Your task to perform on an android device: turn on sleep mode Image 0: 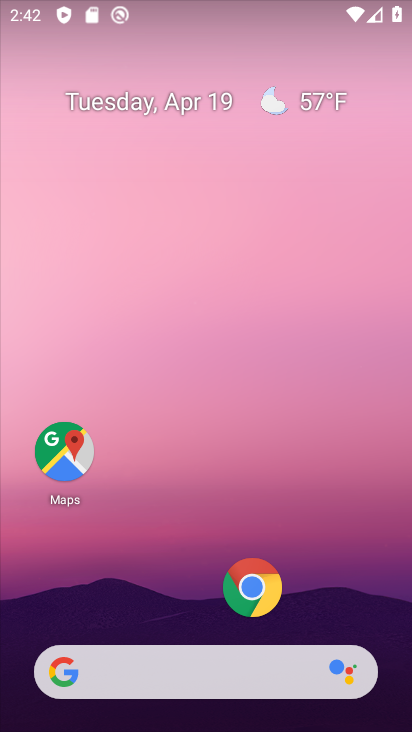
Step 0: drag from (162, 548) to (237, 3)
Your task to perform on an android device: turn on sleep mode Image 1: 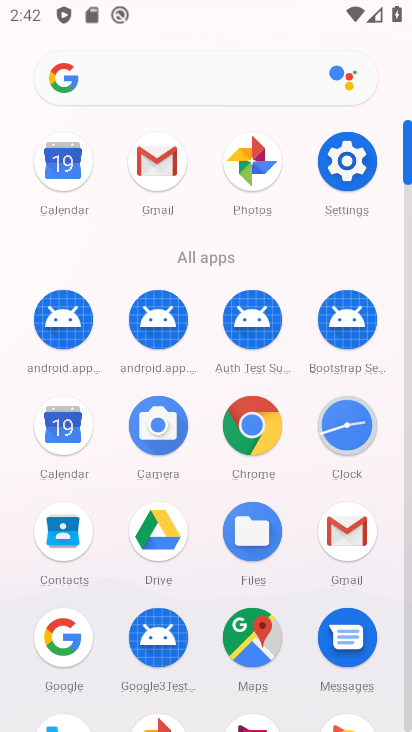
Step 1: click (347, 177)
Your task to perform on an android device: turn on sleep mode Image 2: 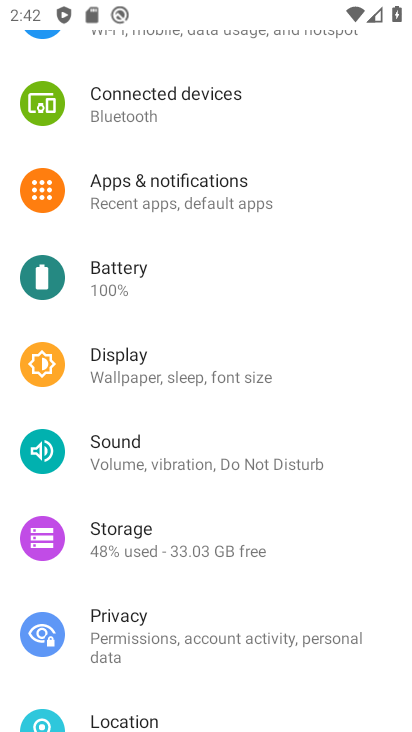
Step 2: drag from (218, 157) to (201, 613)
Your task to perform on an android device: turn on sleep mode Image 3: 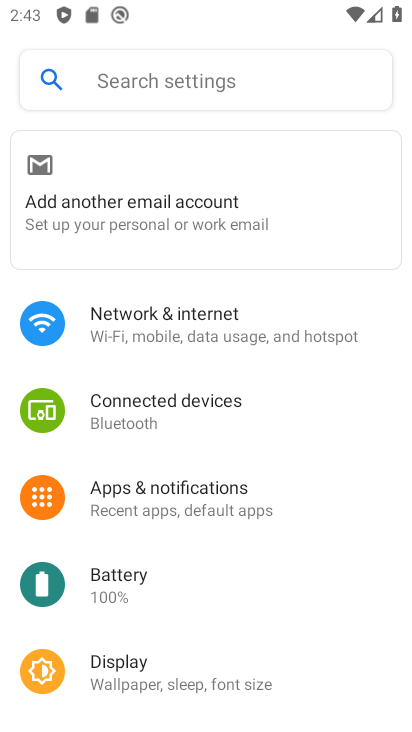
Step 3: click (230, 85)
Your task to perform on an android device: turn on sleep mode Image 4: 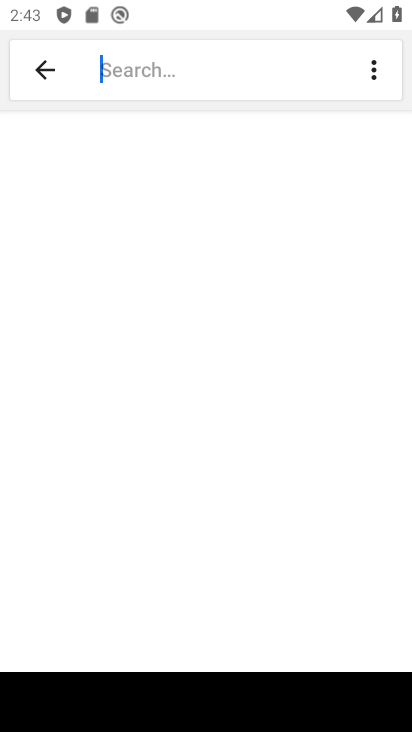
Step 4: type "sleep mode"
Your task to perform on an android device: turn on sleep mode Image 5: 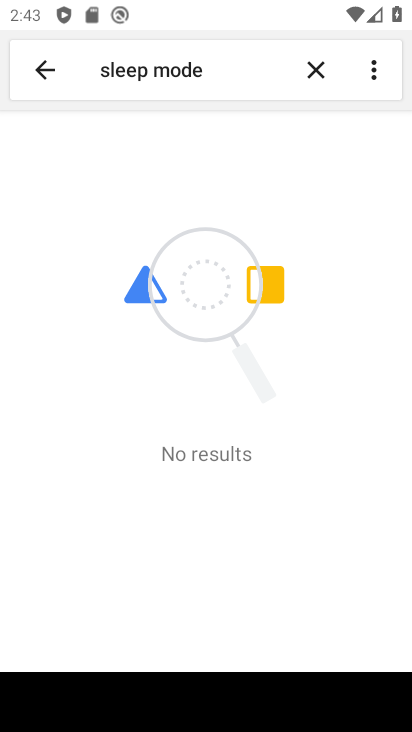
Step 5: task complete